Your task to perform on an android device: open sync settings in chrome Image 0: 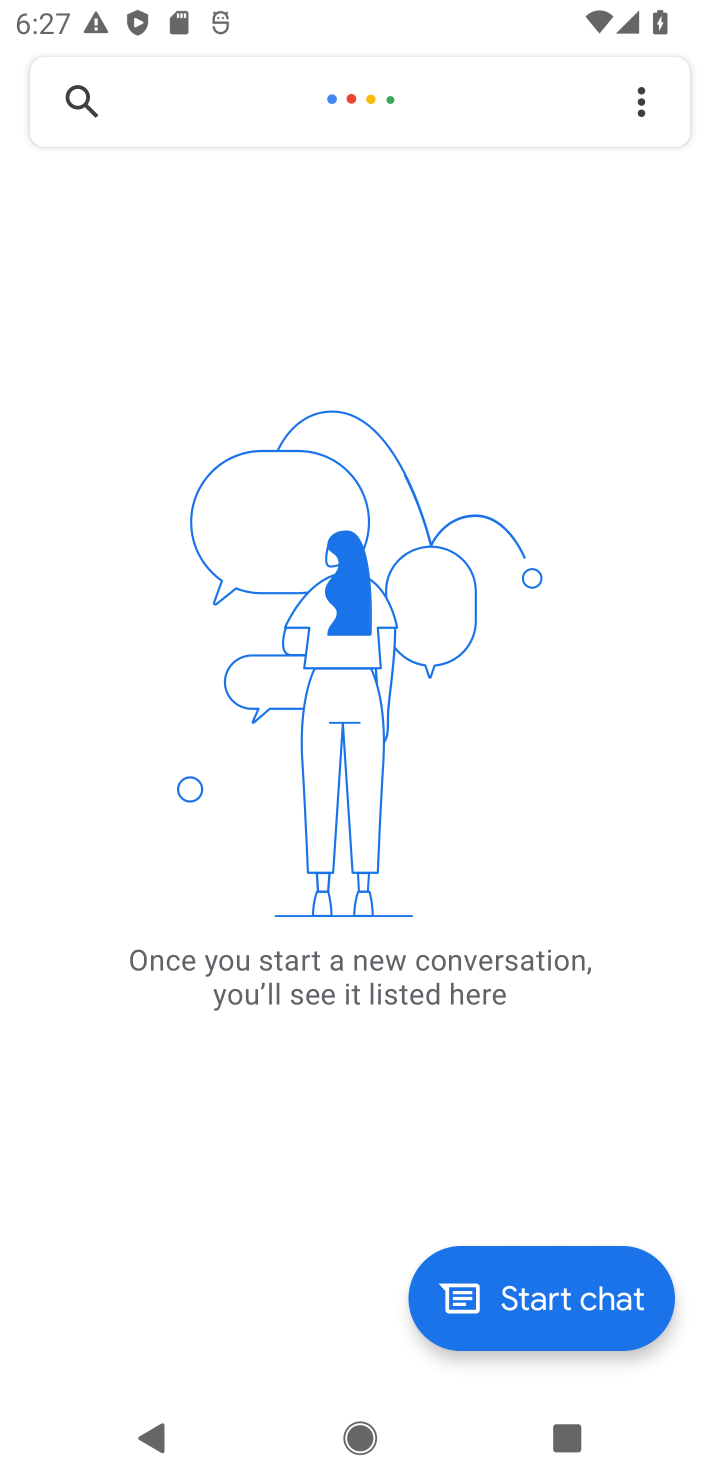
Step 0: press back button
Your task to perform on an android device: open sync settings in chrome Image 1: 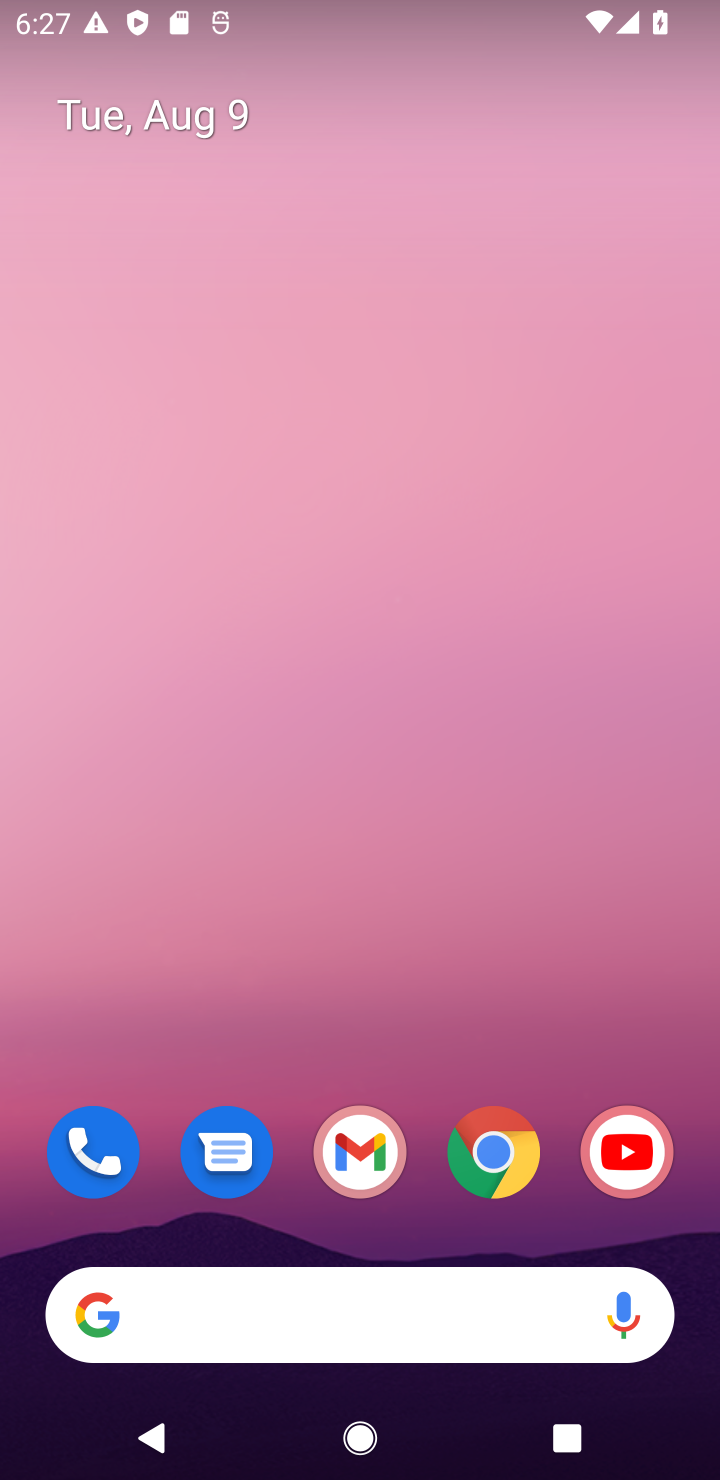
Step 1: press home button
Your task to perform on an android device: open sync settings in chrome Image 2: 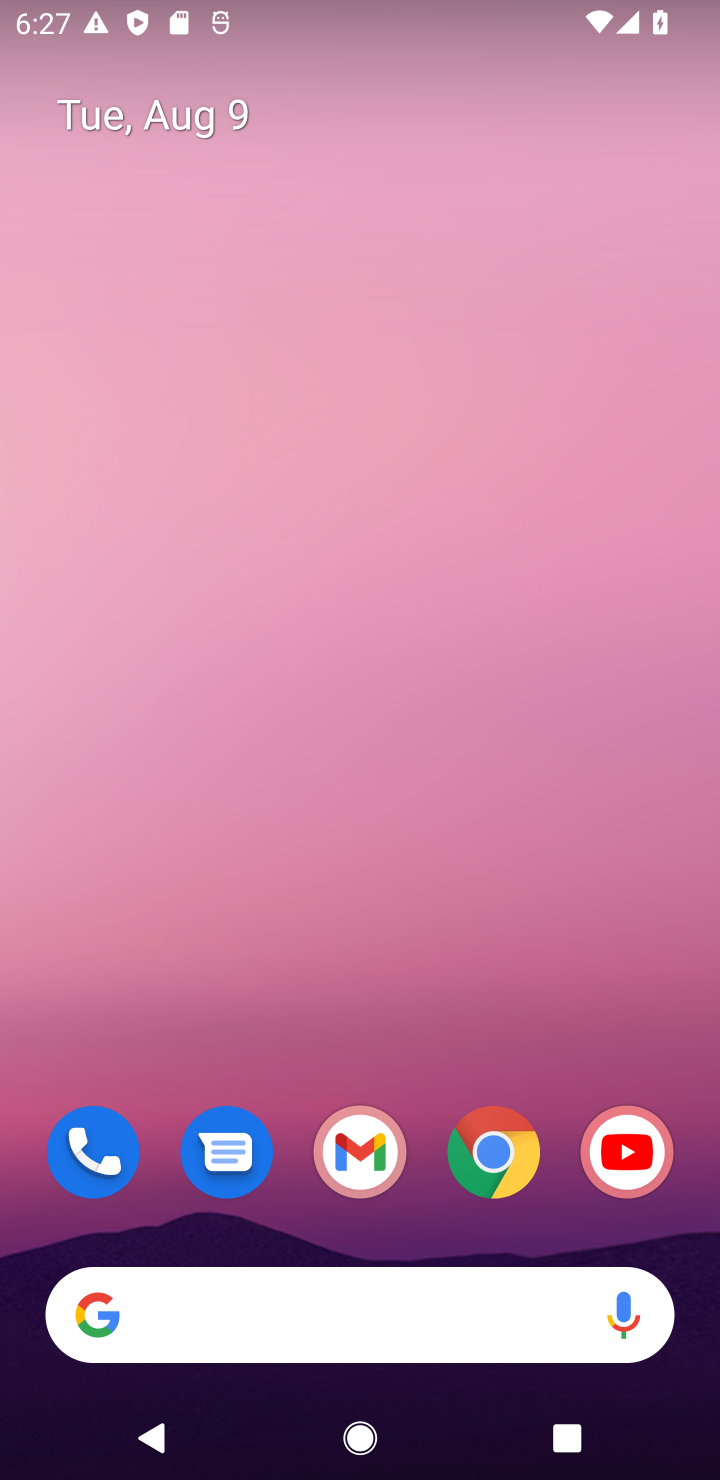
Step 2: click (475, 1166)
Your task to perform on an android device: open sync settings in chrome Image 3: 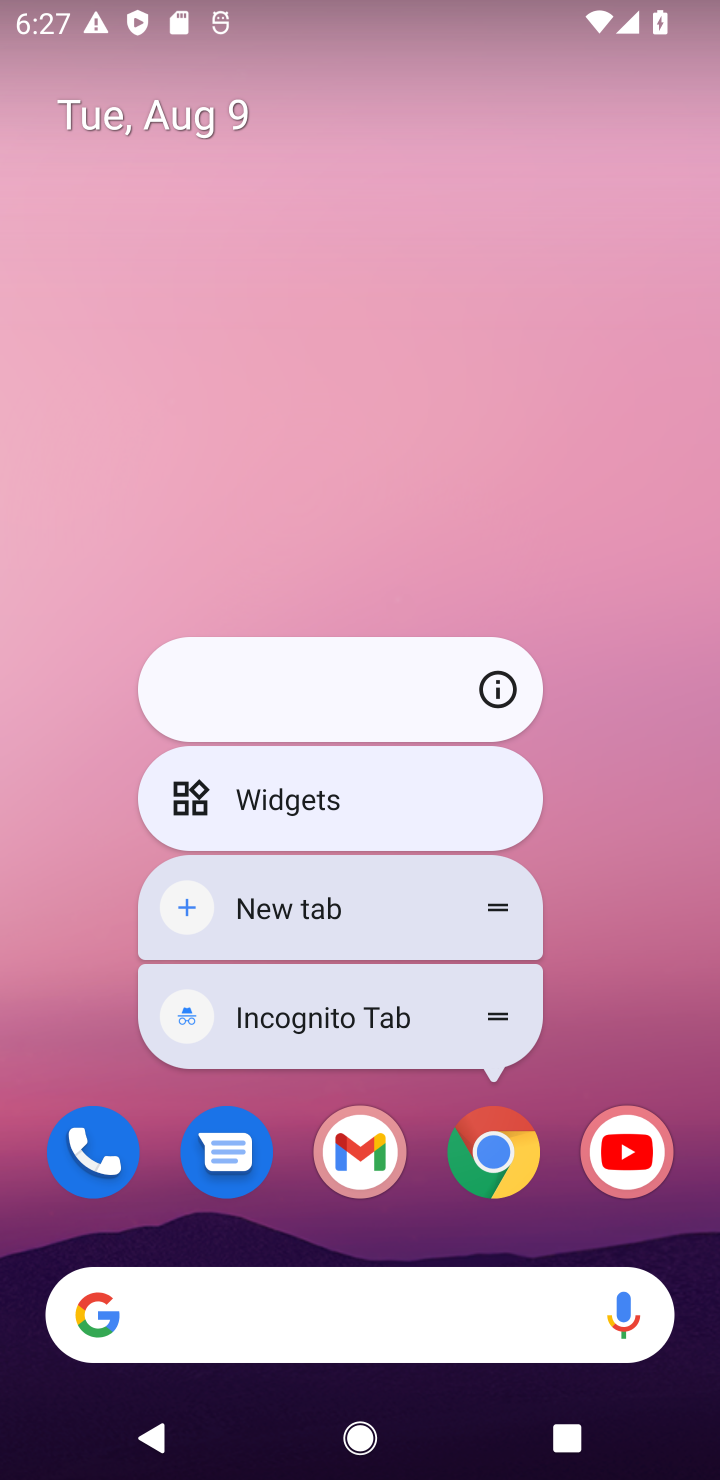
Step 3: click (497, 1154)
Your task to perform on an android device: open sync settings in chrome Image 4: 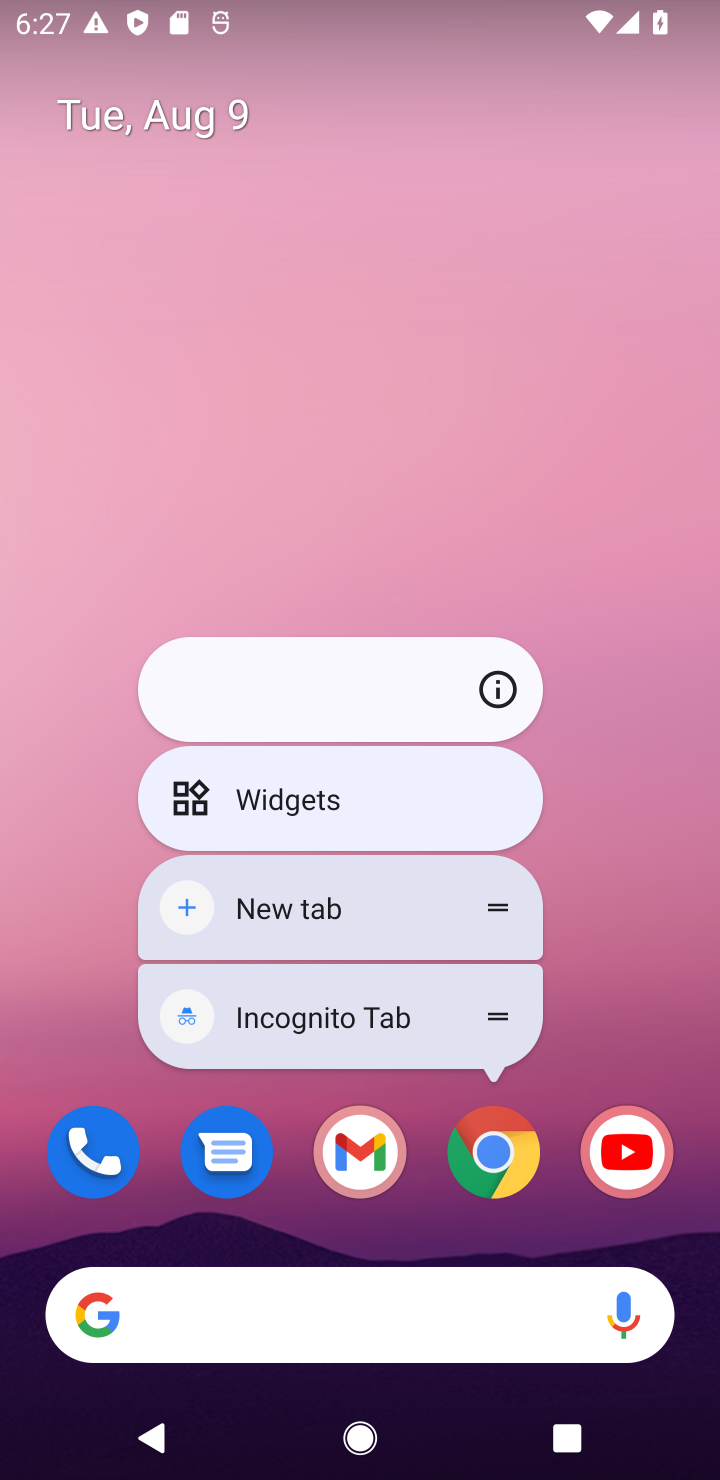
Step 4: click (494, 1143)
Your task to perform on an android device: open sync settings in chrome Image 5: 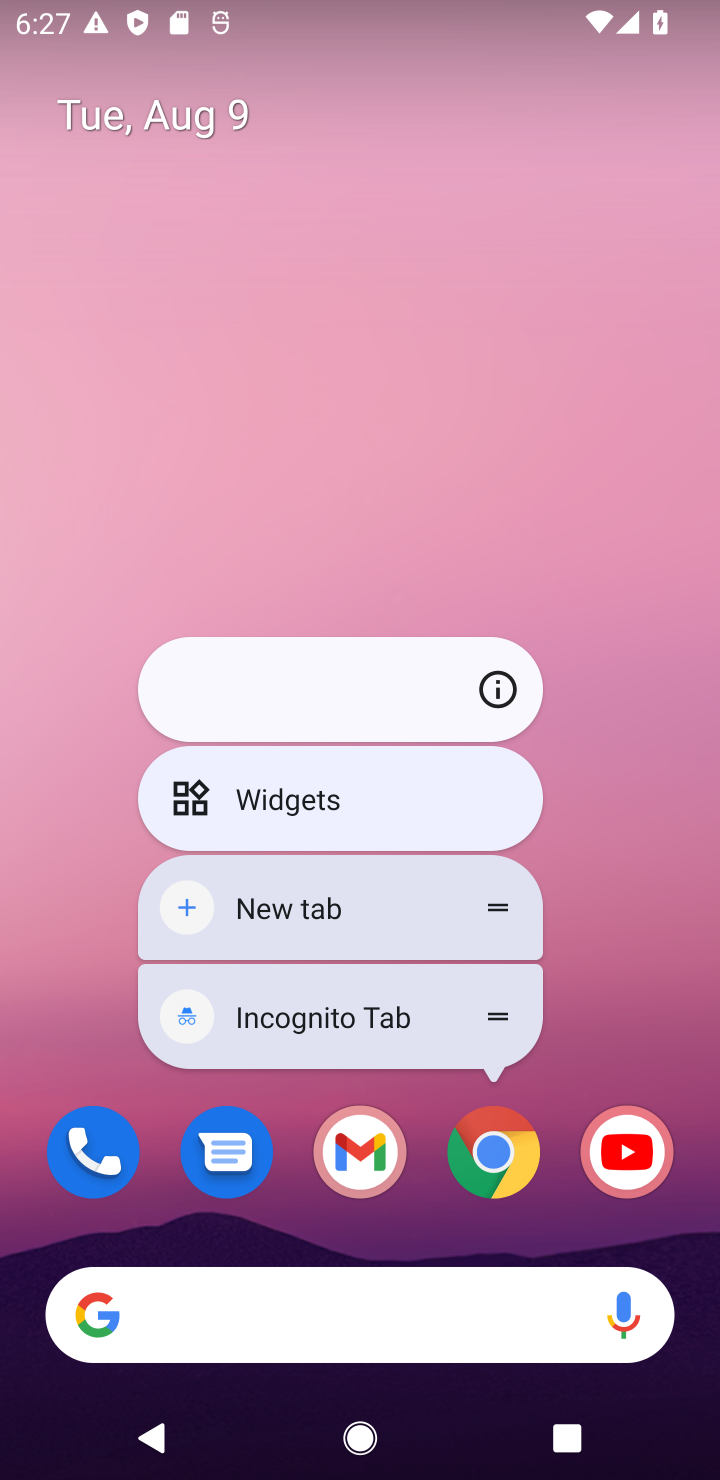
Step 5: click (510, 1170)
Your task to perform on an android device: open sync settings in chrome Image 6: 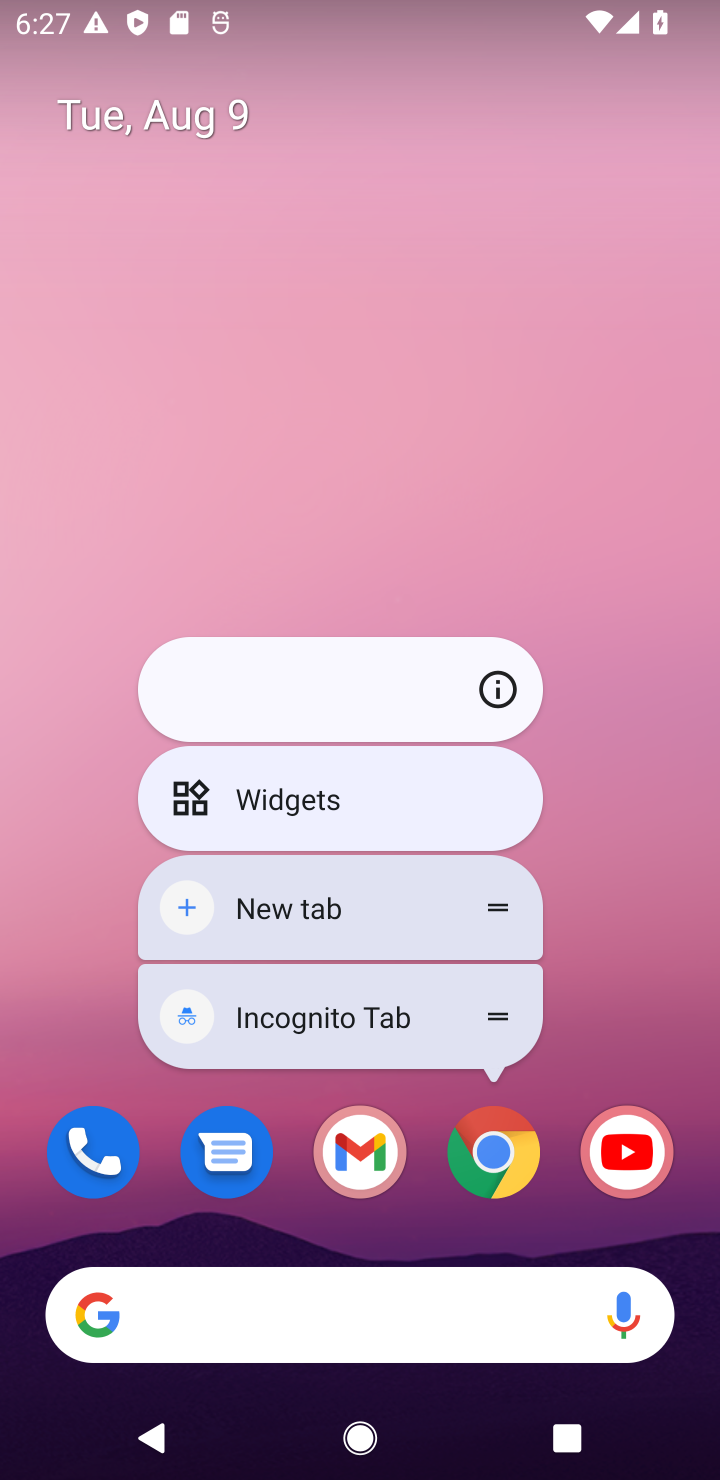
Step 6: click (509, 1164)
Your task to perform on an android device: open sync settings in chrome Image 7: 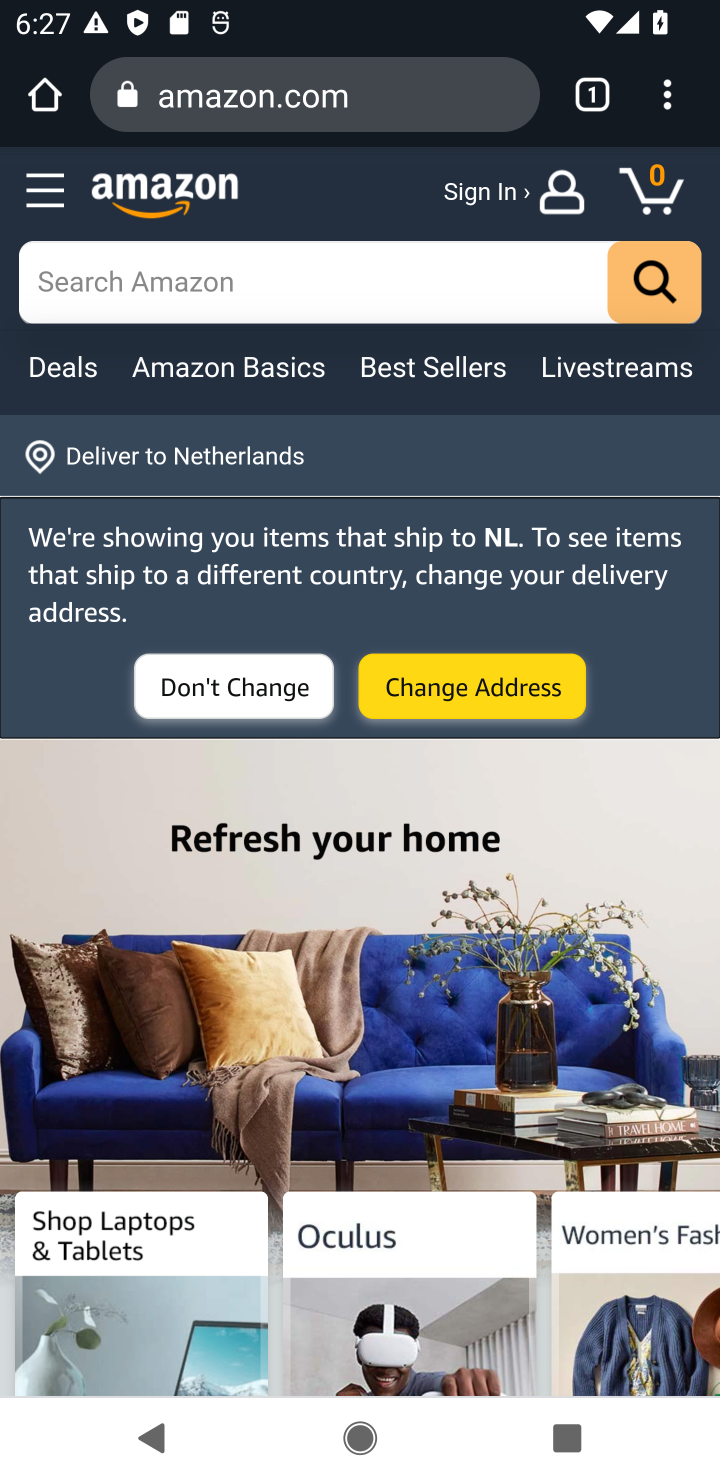
Step 7: drag from (680, 86) to (400, 1235)
Your task to perform on an android device: open sync settings in chrome Image 8: 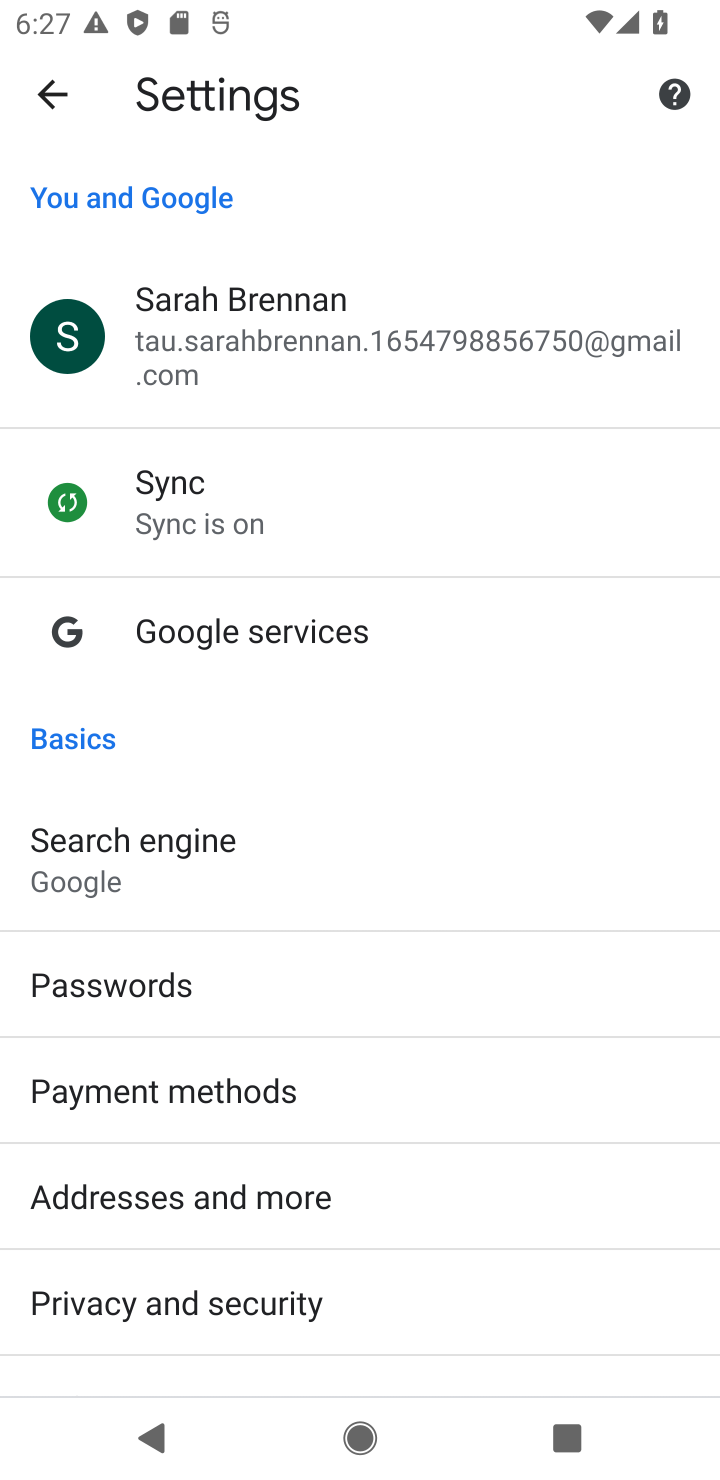
Step 8: click (369, 503)
Your task to perform on an android device: open sync settings in chrome Image 9: 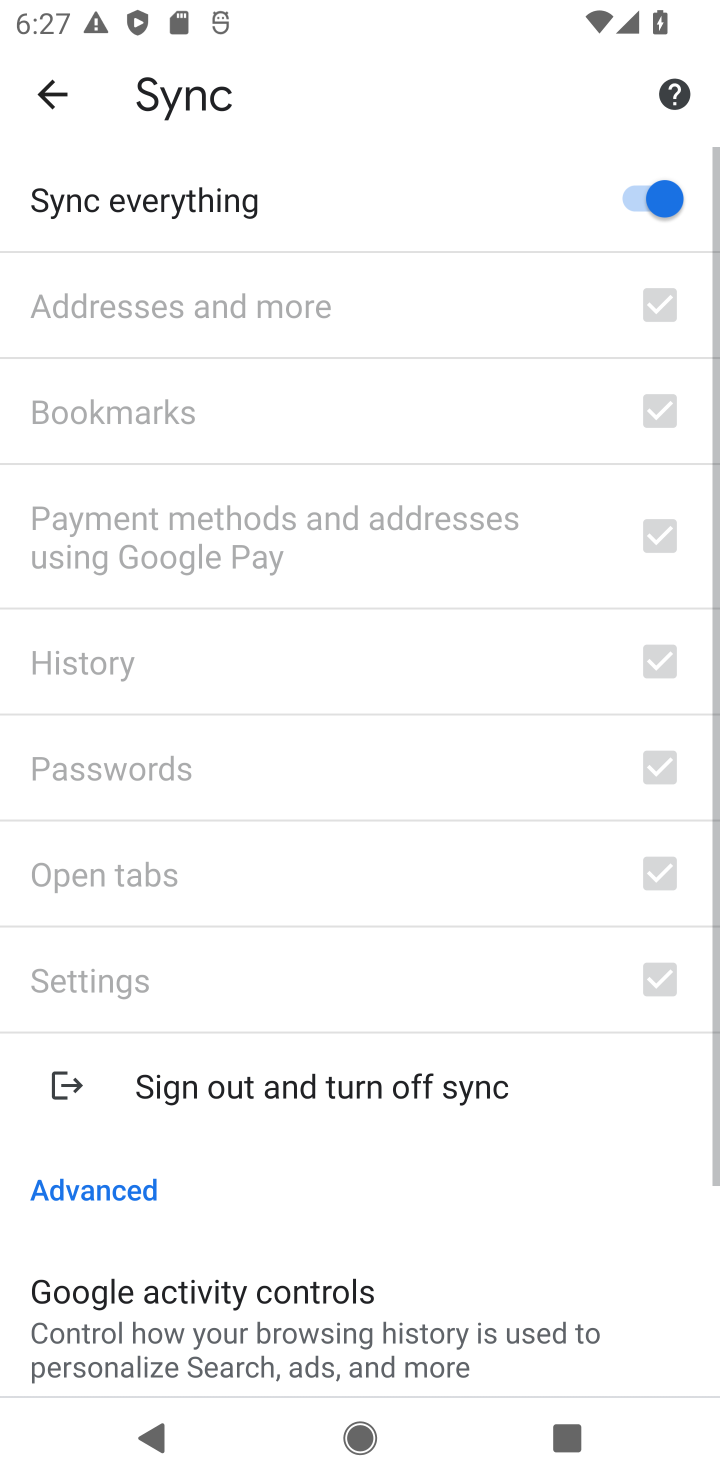
Step 9: task complete